Your task to perform on an android device: change your default location settings in chrome Image 0: 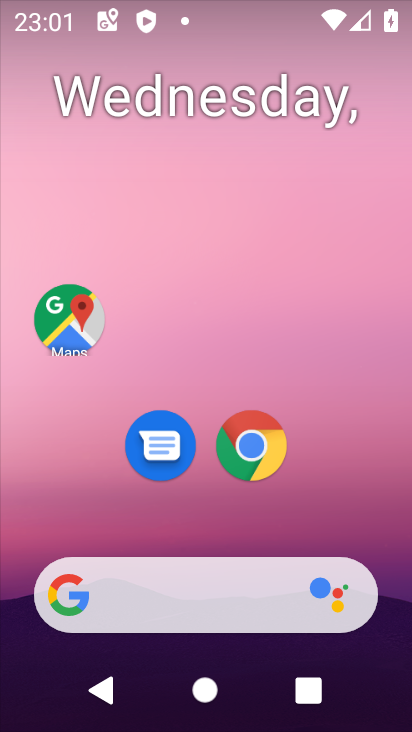
Step 0: drag from (346, 530) to (337, 155)
Your task to perform on an android device: change your default location settings in chrome Image 1: 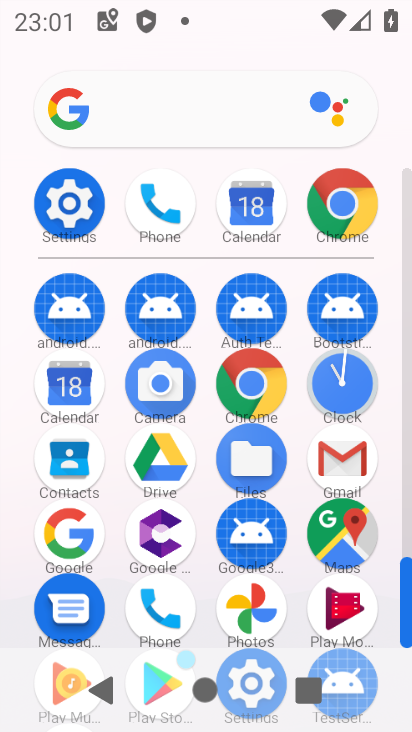
Step 1: click (334, 185)
Your task to perform on an android device: change your default location settings in chrome Image 2: 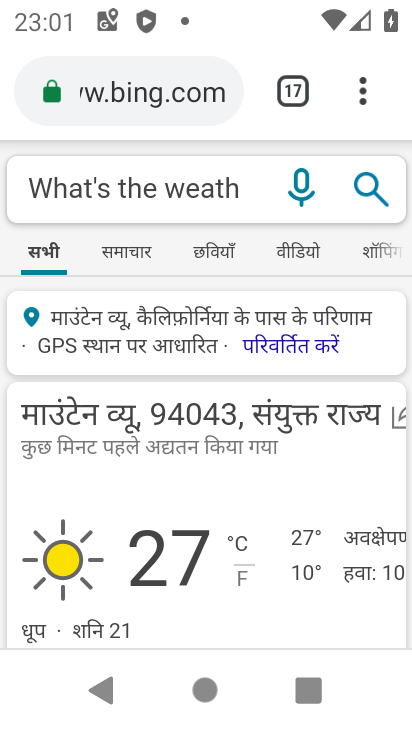
Step 2: click (372, 81)
Your task to perform on an android device: change your default location settings in chrome Image 3: 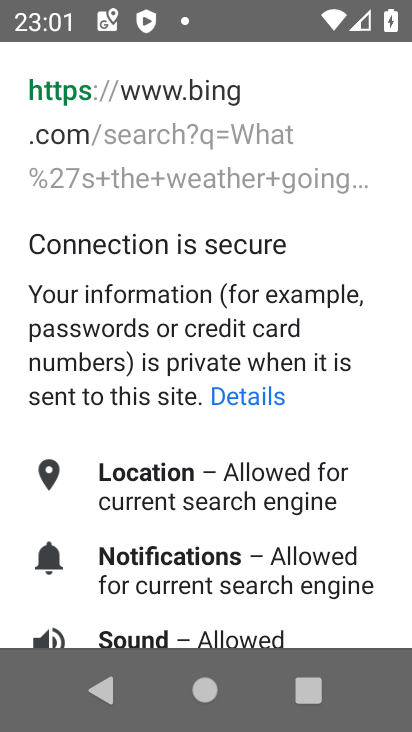
Step 3: press back button
Your task to perform on an android device: change your default location settings in chrome Image 4: 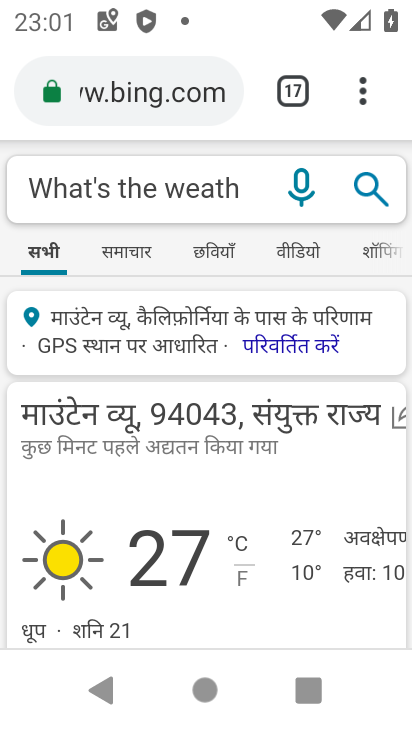
Step 4: click (361, 92)
Your task to perform on an android device: change your default location settings in chrome Image 5: 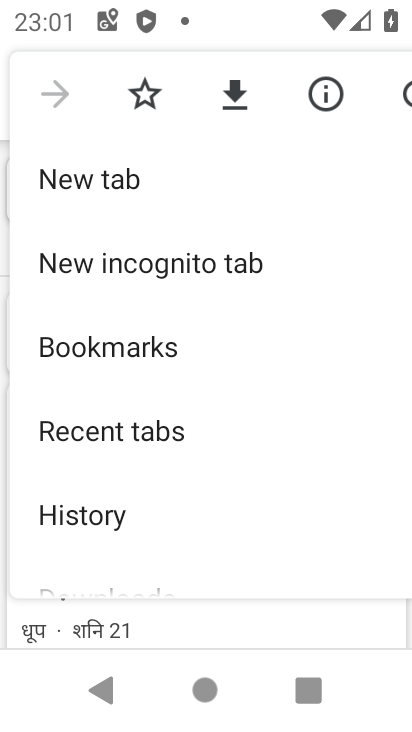
Step 5: drag from (211, 538) to (221, 234)
Your task to perform on an android device: change your default location settings in chrome Image 6: 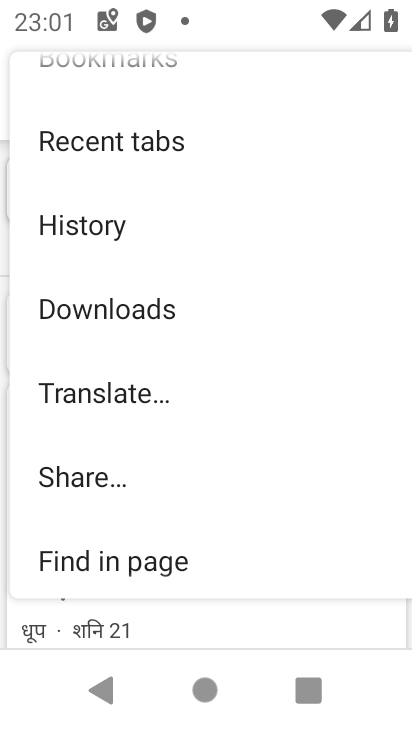
Step 6: drag from (158, 546) to (210, 282)
Your task to perform on an android device: change your default location settings in chrome Image 7: 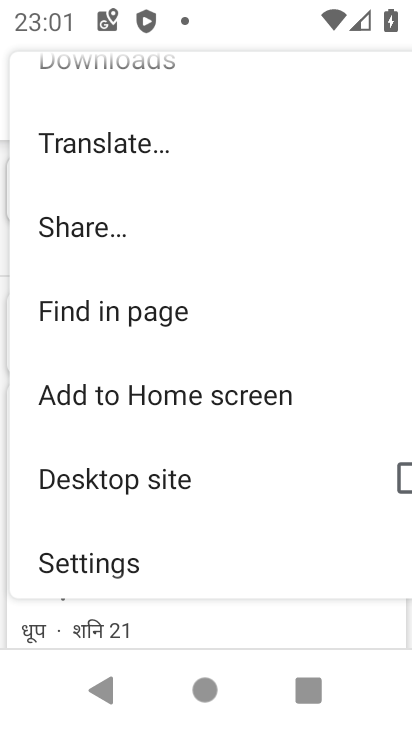
Step 7: drag from (192, 510) to (228, 320)
Your task to perform on an android device: change your default location settings in chrome Image 8: 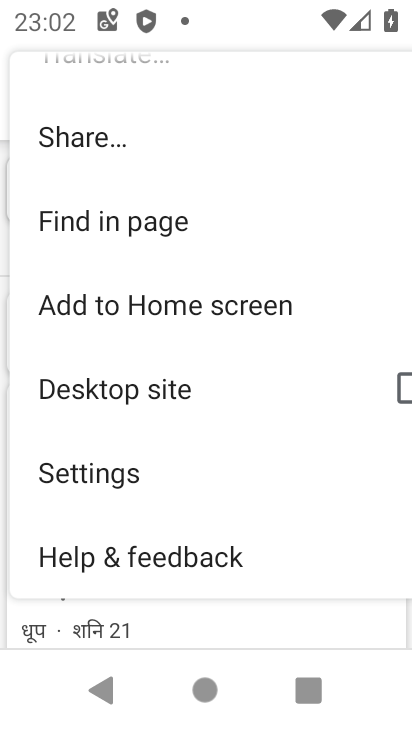
Step 8: click (133, 466)
Your task to perform on an android device: change your default location settings in chrome Image 9: 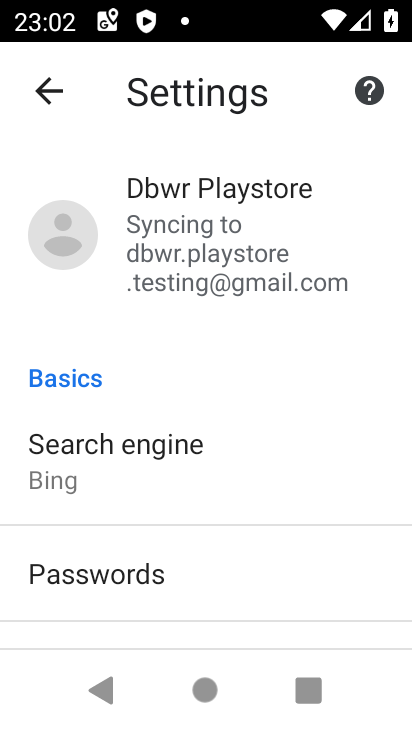
Step 9: drag from (191, 528) to (254, 177)
Your task to perform on an android device: change your default location settings in chrome Image 10: 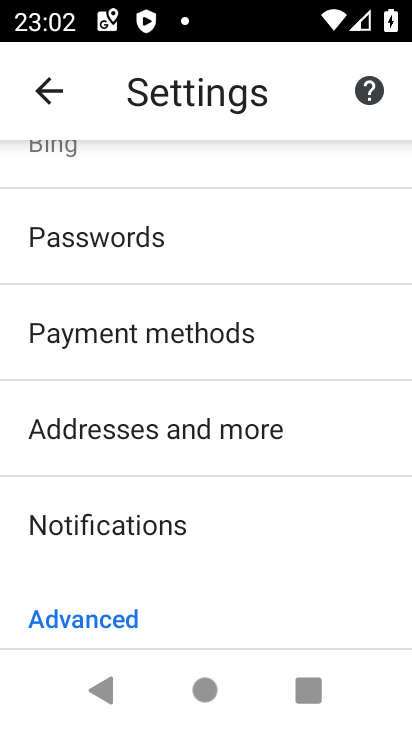
Step 10: drag from (255, 521) to (303, 207)
Your task to perform on an android device: change your default location settings in chrome Image 11: 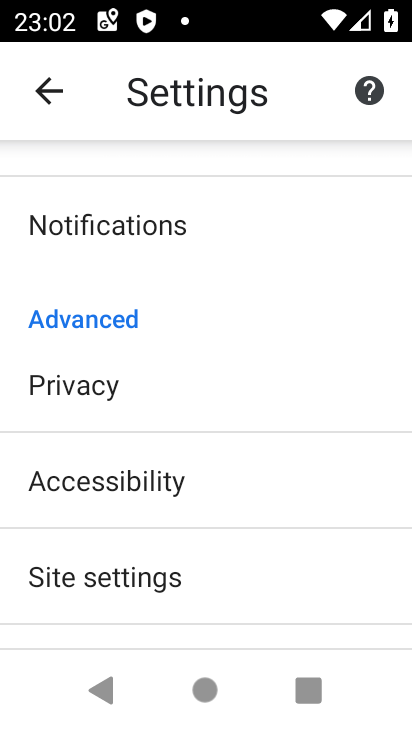
Step 11: drag from (266, 528) to (272, 240)
Your task to perform on an android device: change your default location settings in chrome Image 12: 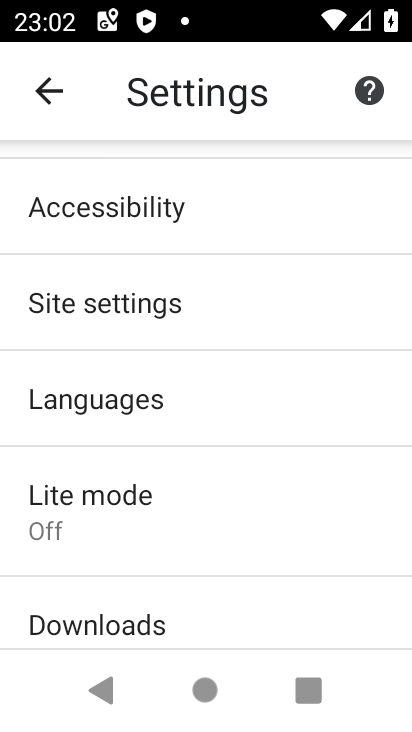
Step 12: click (157, 305)
Your task to perform on an android device: change your default location settings in chrome Image 13: 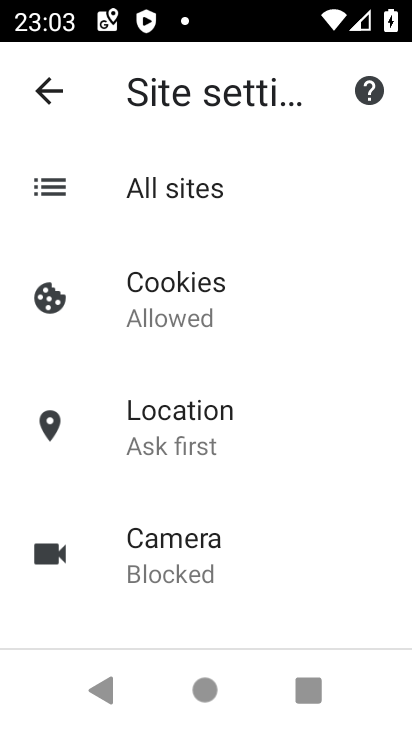
Step 13: task complete